Your task to perform on an android device: Is it going to rain tomorrow? Image 0: 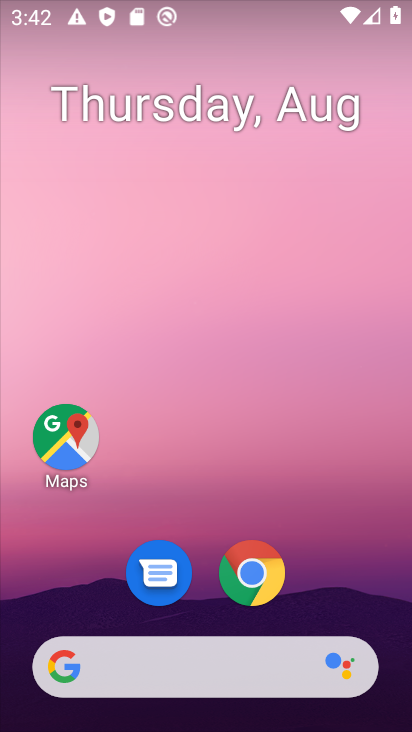
Step 0: drag from (240, 305) to (232, 195)
Your task to perform on an android device: Is it going to rain tomorrow? Image 1: 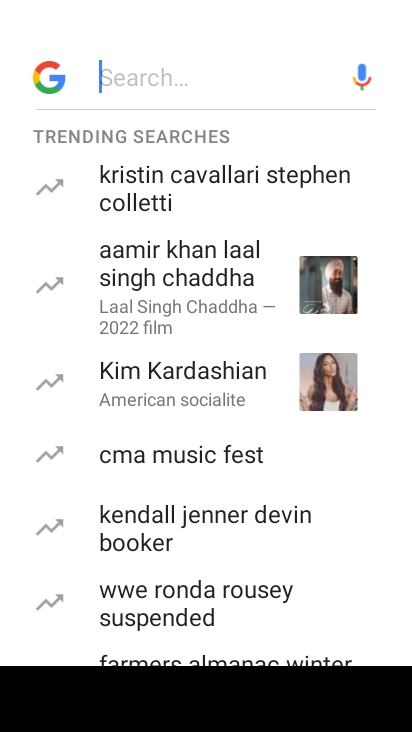
Step 1: press back button
Your task to perform on an android device: Is it going to rain tomorrow? Image 2: 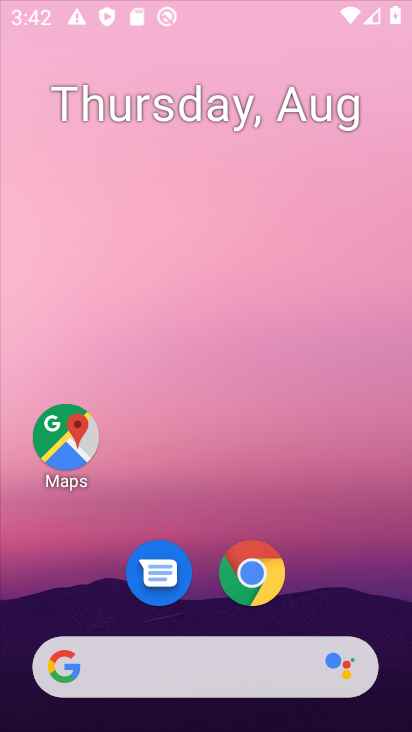
Step 2: press home button
Your task to perform on an android device: Is it going to rain tomorrow? Image 3: 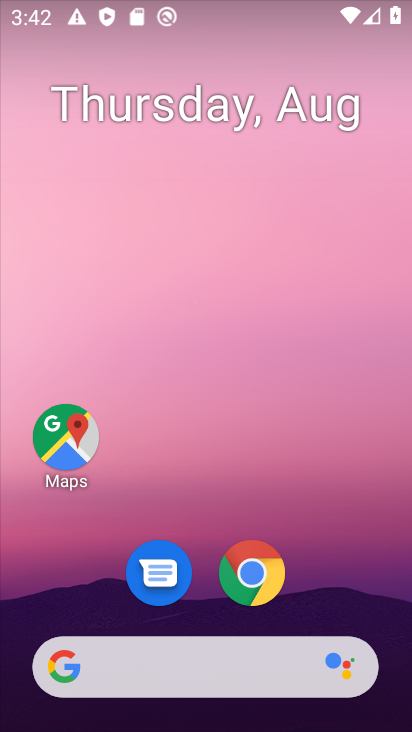
Step 3: drag from (191, 590) to (187, 120)
Your task to perform on an android device: Is it going to rain tomorrow? Image 4: 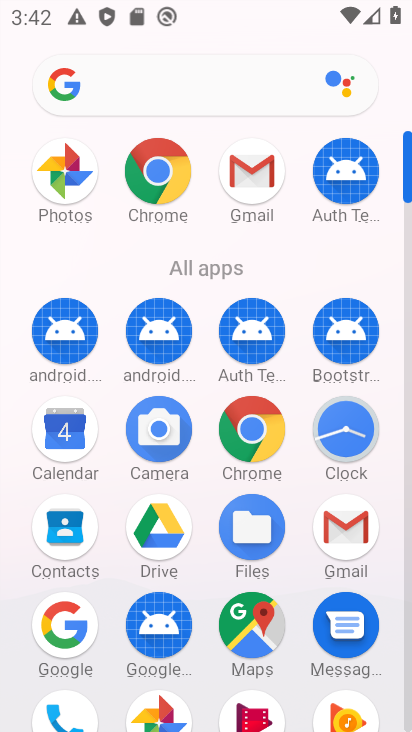
Step 4: click (165, 171)
Your task to perform on an android device: Is it going to rain tomorrow? Image 5: 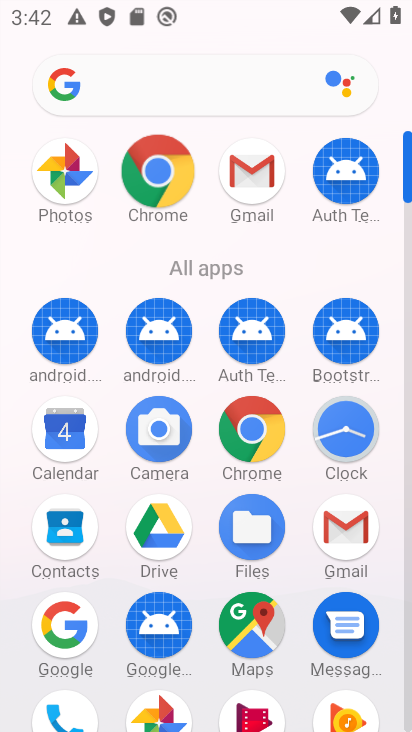
Step 5: click (165, 171)
Your task to perform on an android device: Is it going to rain tomorrow? Image 6: 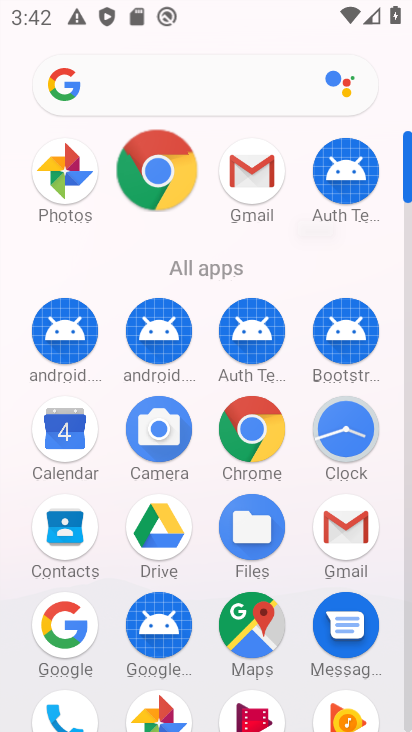
Step 6: click (164, 173)
Your task to perform on an android device: Is it going to rain tomorrow? Image 7: 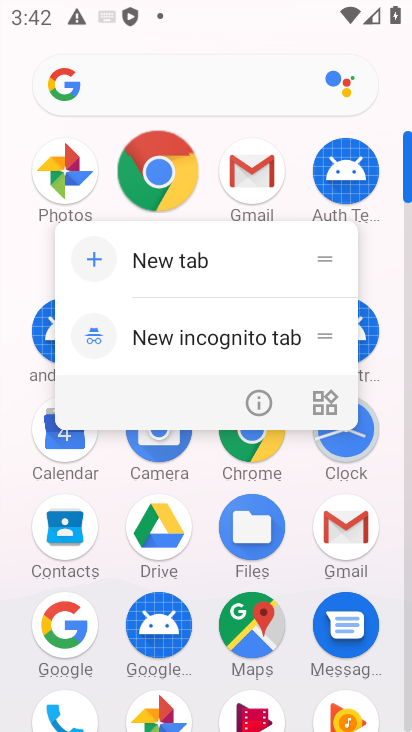
Step 7: click (164, 175)
Your task to perform on an android device: Is it going to rain tomorrow? Image 8: 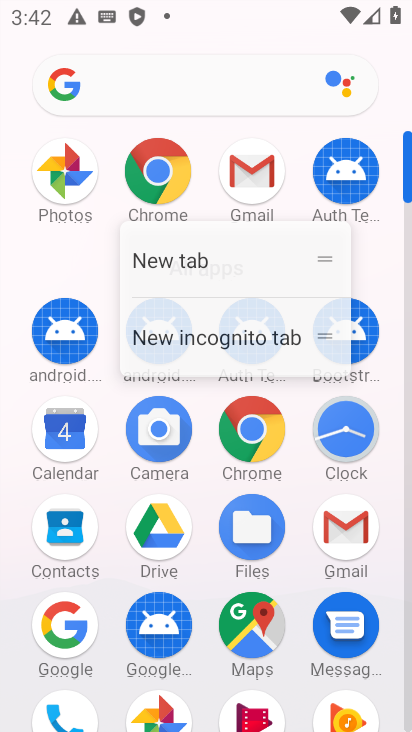
Step 8: click (166, 178)
Your task to perform on an android device: Is it going to rain tomorrow? Image 9: 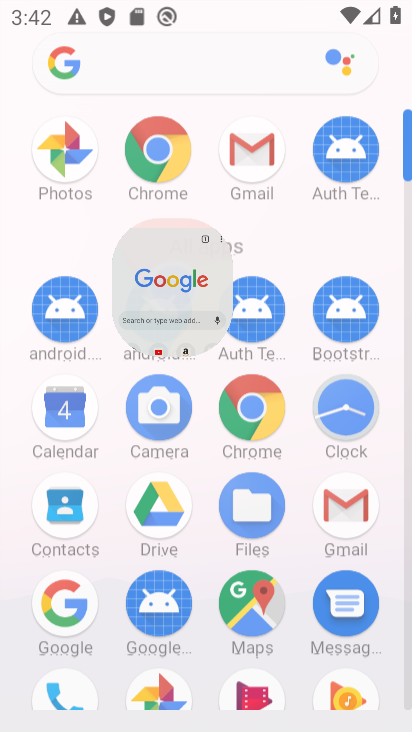
Step 9: click (149, 162)
Your task to perform on an android device: Is it going to rain tomorrow? Image 10: 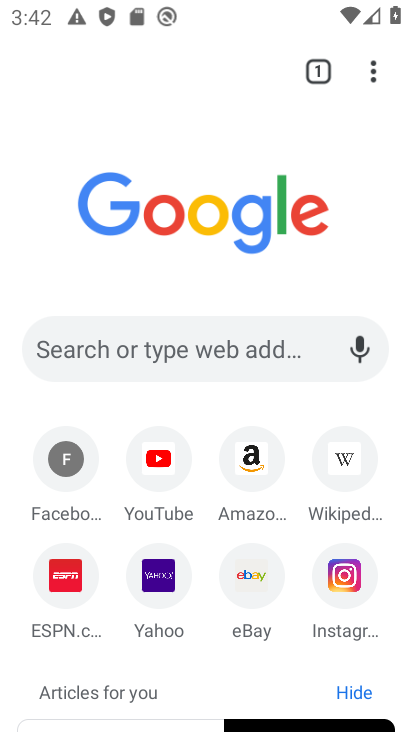
Step 10: click (368, 69)
Your task to perform on an android device: Is it going to rain tomorrow? Image 11: 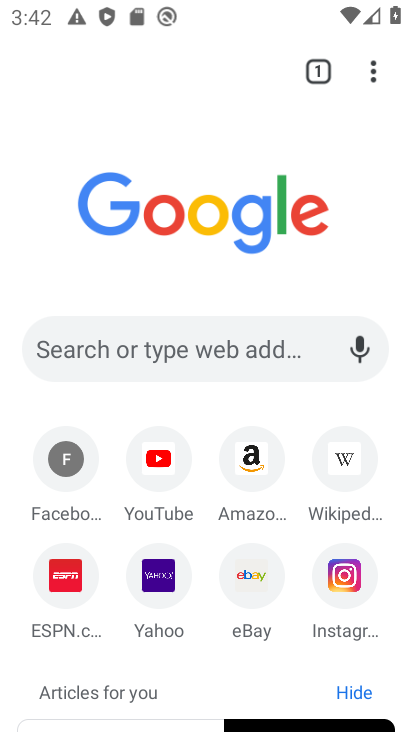
Step 11: click (111, 348)
Your task to perform on an android device: Is it going to rain tomorrow? Image 12: 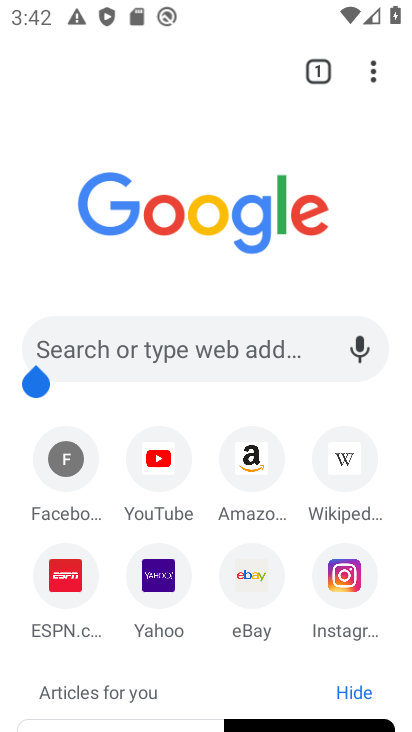
Step 12: click (111, 348)
Your task to perform on an android device: Is it going to rain tomorrow? Image 13: 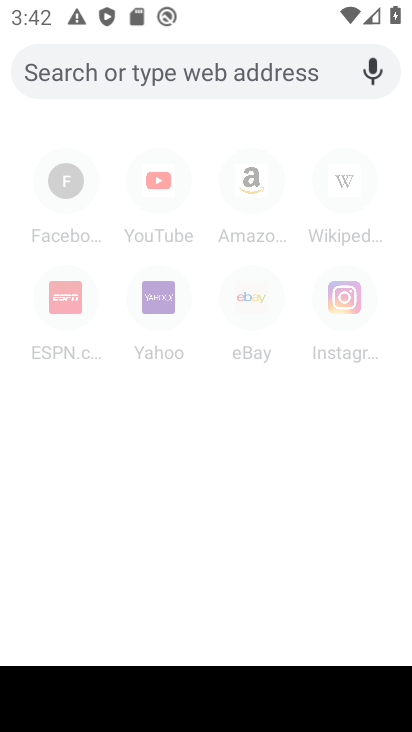
Step 13: type "is it going to rain today"
Your task to perform on an android device: Is it going to rain tomorrow? Image 14: 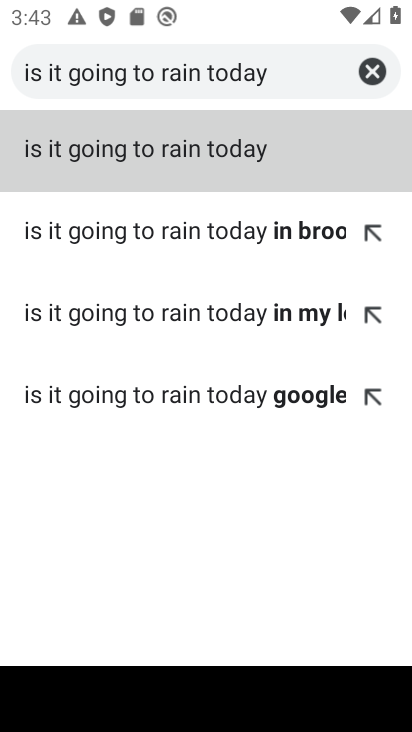
Step 14: click (159, 159)
Your task to perform on an android device: Is it going to rain tomorrow? Image 15: 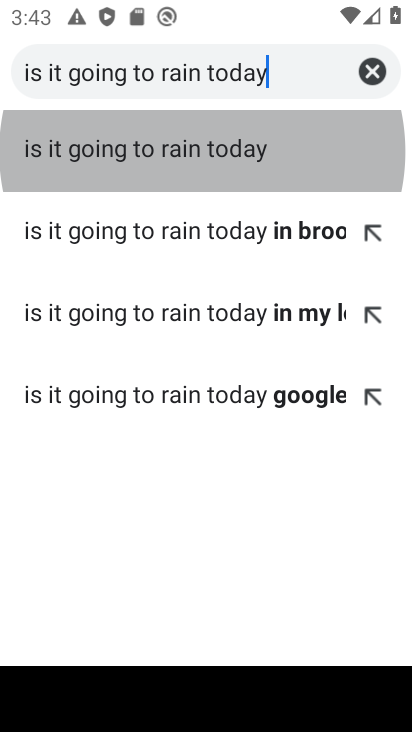
Step 15: click (158, 160)
Your task to perform on an android device: Is it going to rain tomorrow? Image 16: 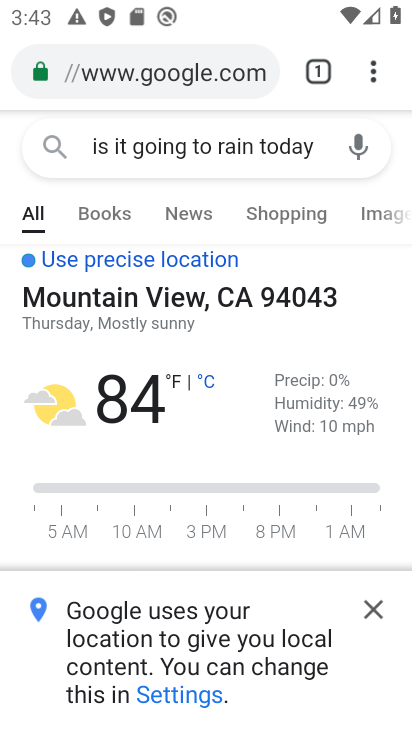
Step 16: task complete